Your task to perform on an android device: Go to Wikipedia Image 0: 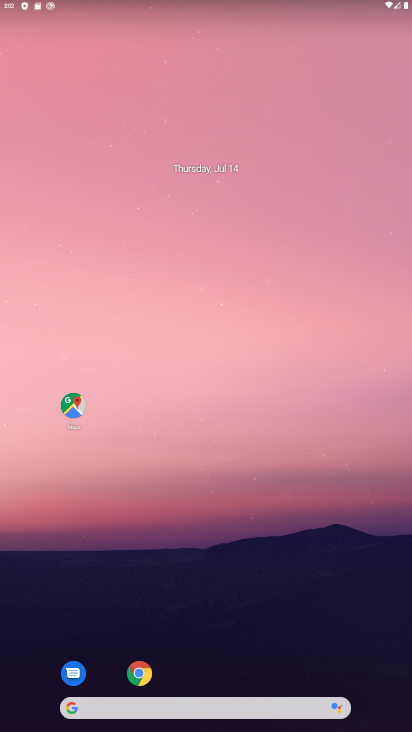
Step 0: click (136, 674)
Your task to perform on an android device: Go to Wikipedia Image 1: 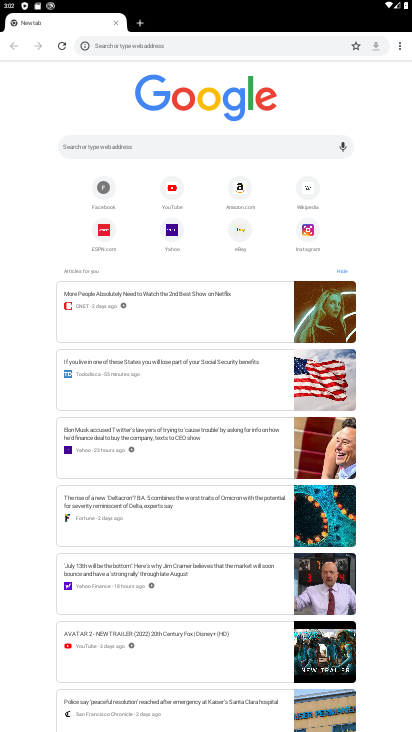
Step 1: click (308, 191)
Your task to perform on an android device: Go to Wikipedia Image 2: 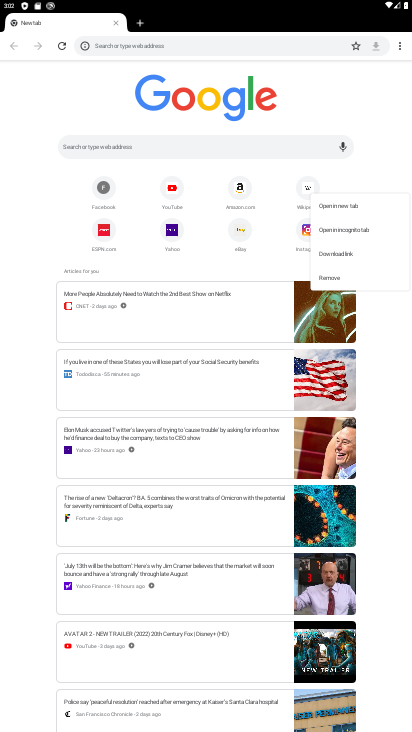
Step 2: click (298, 191)
Your task to perform on an android device: Go to Wikipedia Image 3: 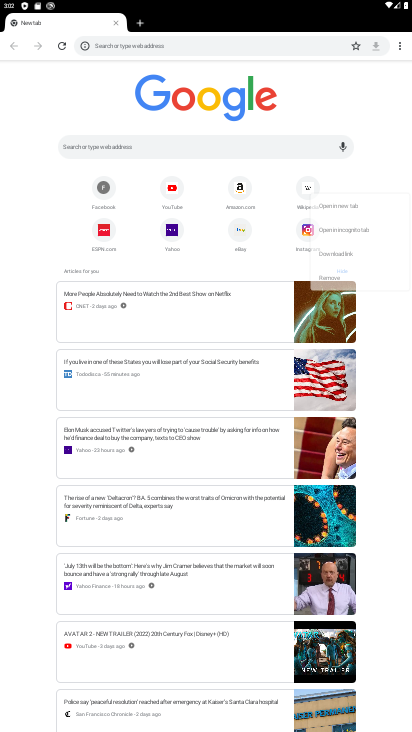
Step 3: click (309, 193)
Your task to perform on an android device: Go to Wikipedia Image 4: 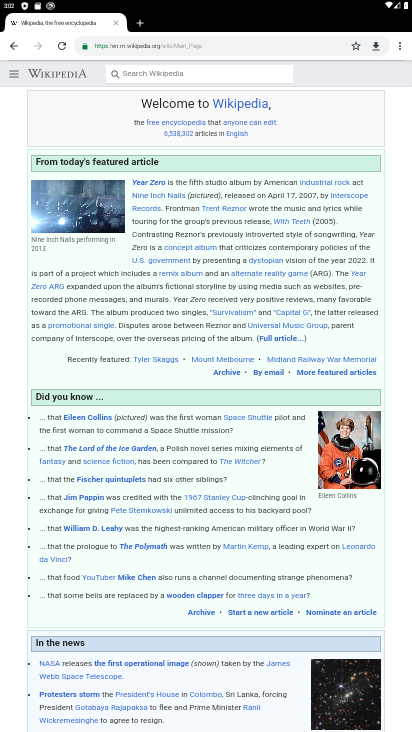
Step 4: task complete